Your task to perform on an android device: When is my next appointment? Image 0: 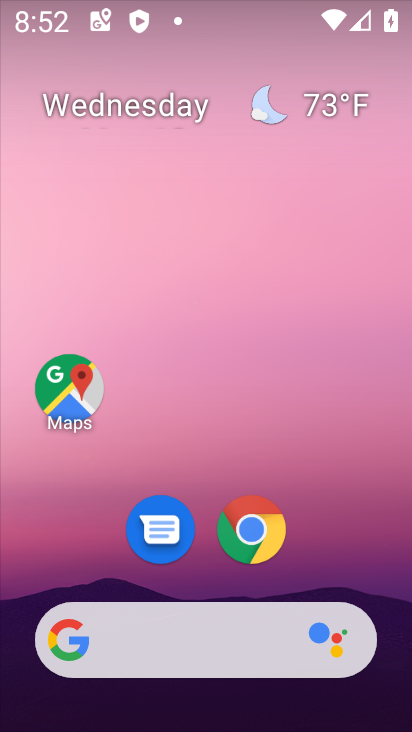
Step 0: drag from (373, 576) to (354, 195)
Your task to perform on an android device: When is my next appointment? Image 1: 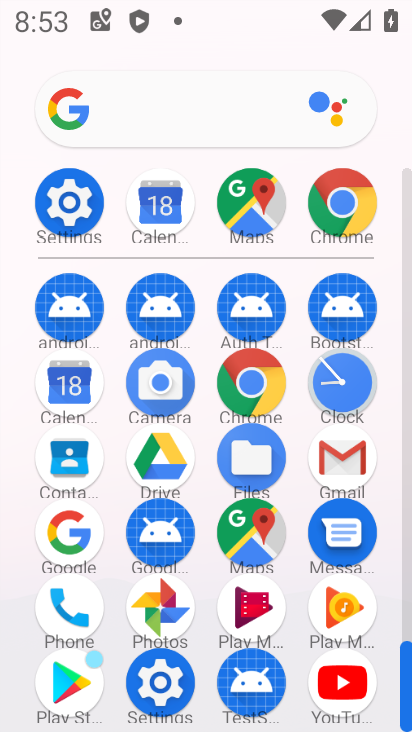
Step 1: click (70, 392)
Your task to perform on an android device: When is my next appointment? Image 2: 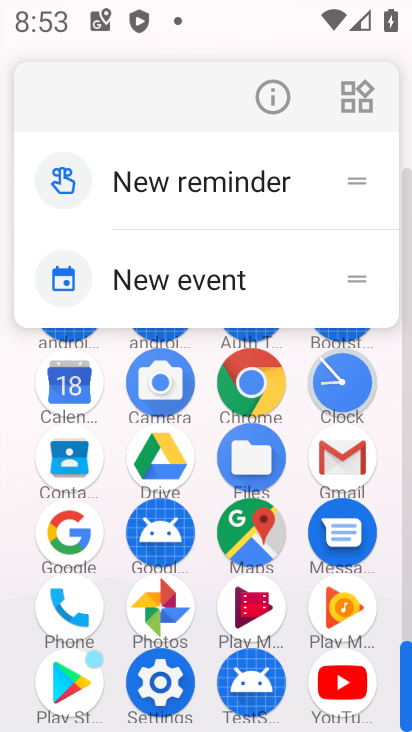
Step 2: click (80, 393)
Your task to perform on an android device: When is my next appointment? Image 3: 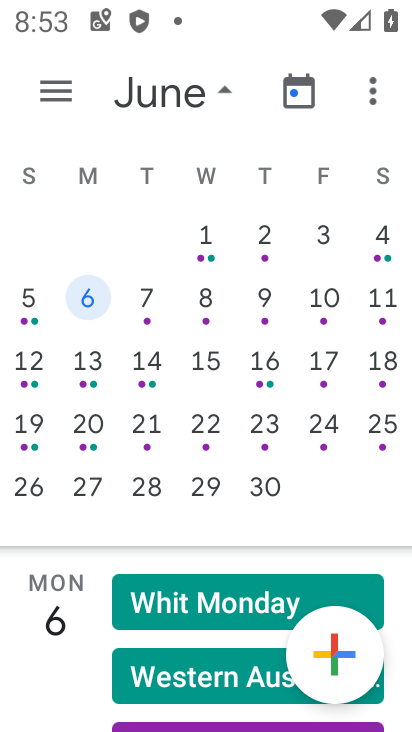
Step 3: drag from (46, 219) to (408, 223)
Your task to perform on an android device: When is my next appointment? Image 4: 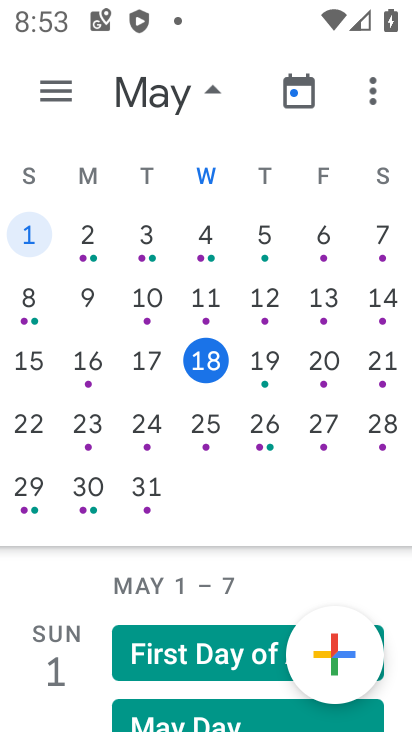
Step 4: click (322, 367)
Your task to perform on an android device: When is my next appointment? Image 5: 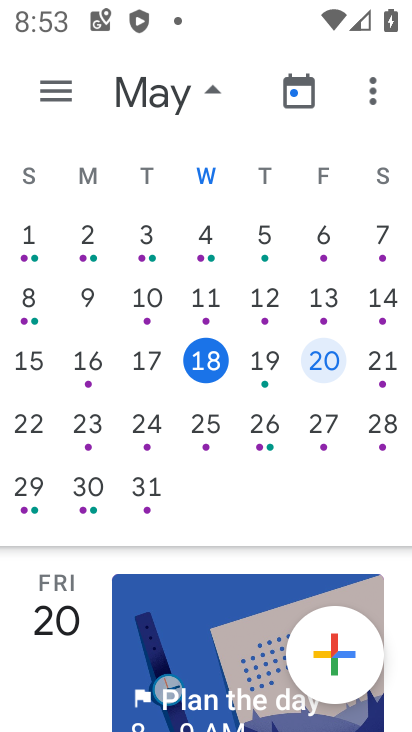
Step 5: drag from (342, 516) to (354, 273)
Your task to perform on an android device: When is my next appointment? Image 6: 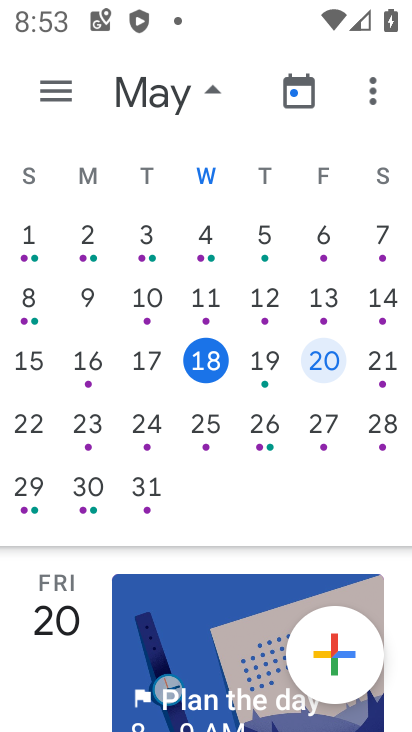
Step 6: click (234, 648)
Your task to perform on an android device: When is my next appointment? Image 7: 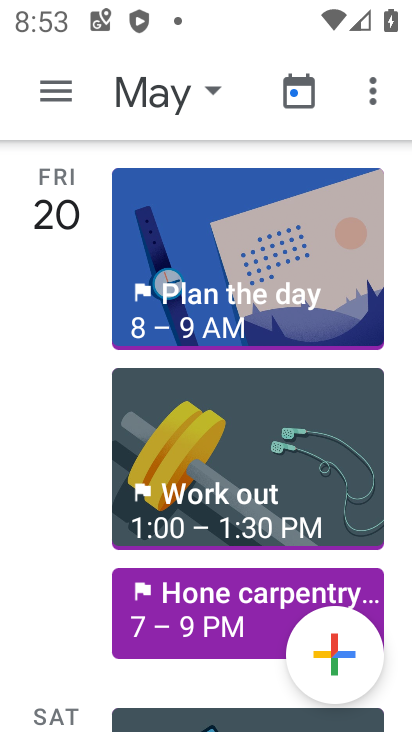
Step 7: task complete